Your task to perform on an android device: Open Android settings Image 0: 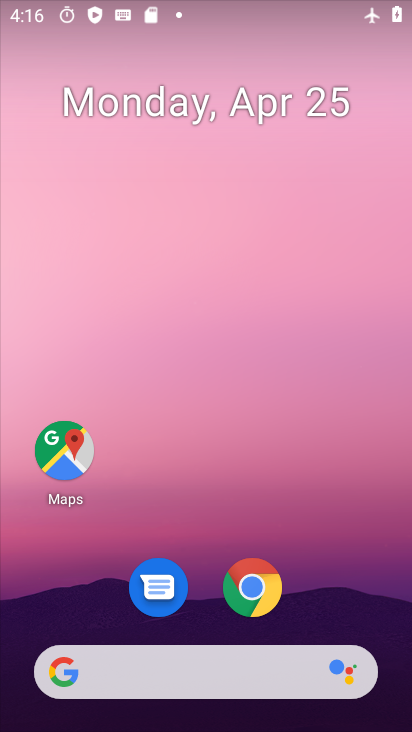
Step 0: drag from (303, 584) to (321, 124)
Your task to perform on an android device: Open Android settings Image 1: 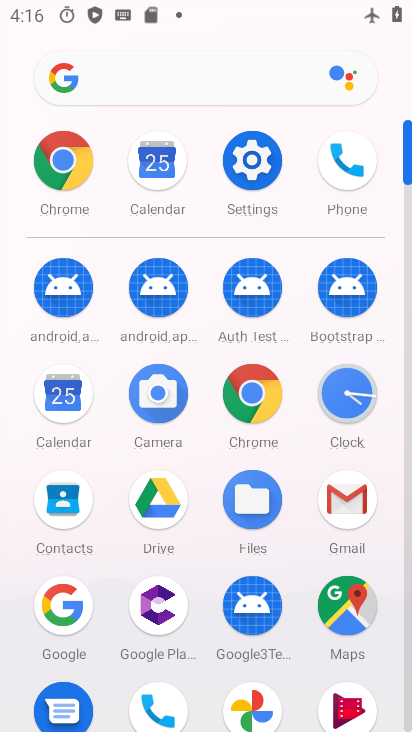
Step 1: click (254, 161)
Your task to perform on an android device: Open Android settings Image 2: 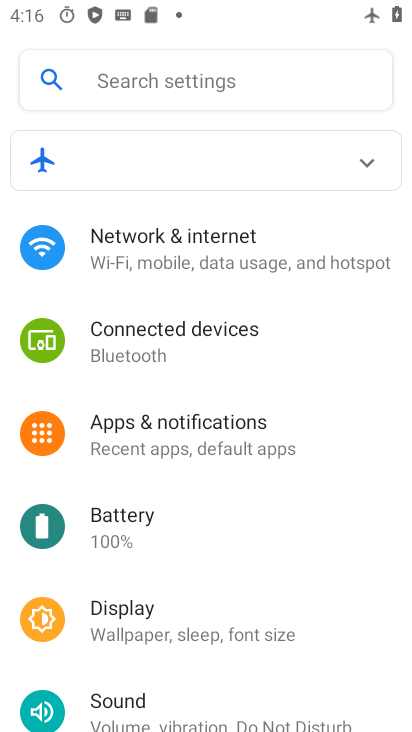
Step 2: task complete